Your task to perform on an android device: open a bookmark in the chrome app Image 0: 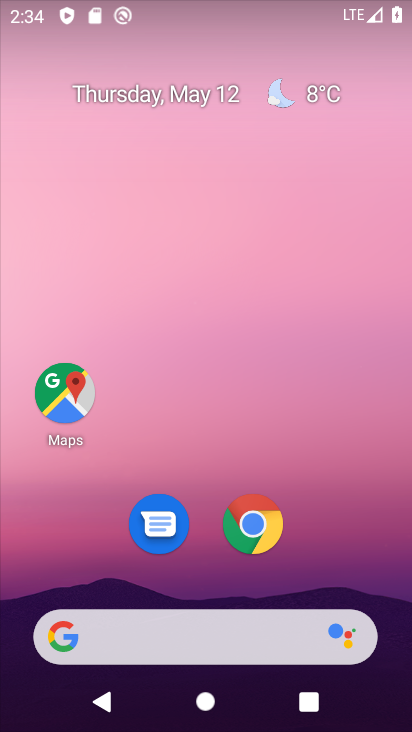
Step 0: click (268, 520)
Your task to perform on an android device: open a bookmark in the chrome app Image 1: 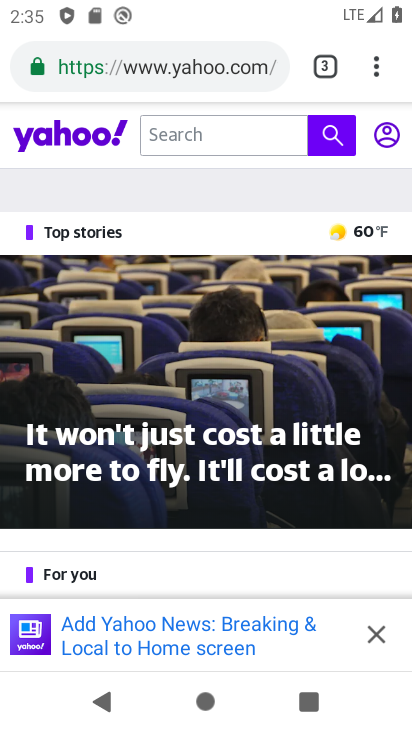
Step 1: click (374, 65)
Your task to perform on an android device: open a bookmark in the chrome app Image 2: 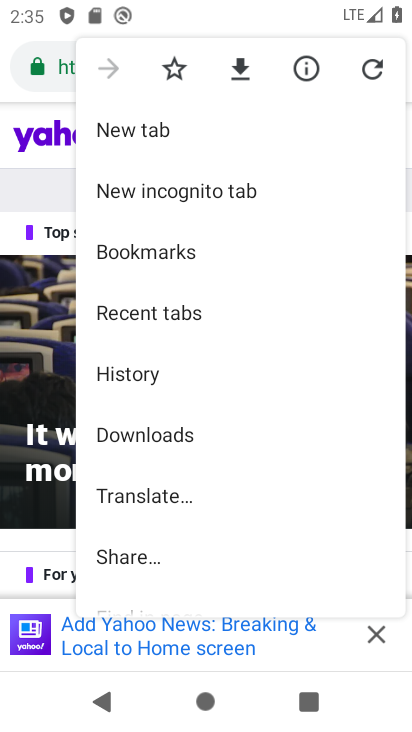
Step 2: click (211, 244)
Your task to perform on an android device: open a bookmark in the chrome app Image 3: 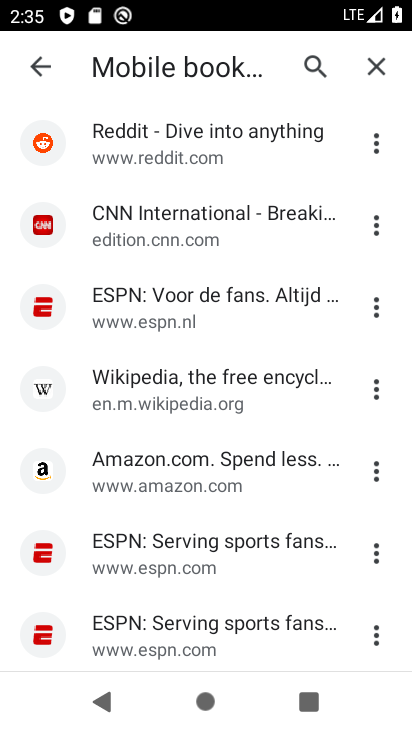
Step 3: click (222, 208)
Your task to perform on an android device: open a bookmark in the chrome app Image 4: 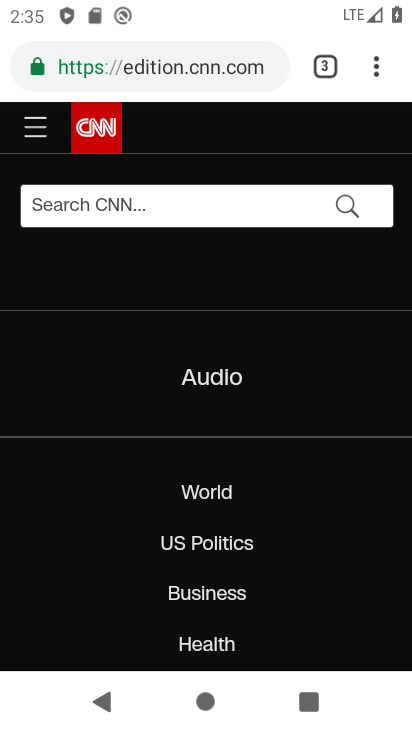
Step 4: task complete